Your task to perform on an android device: turn on translation in the chrome app Image 0: 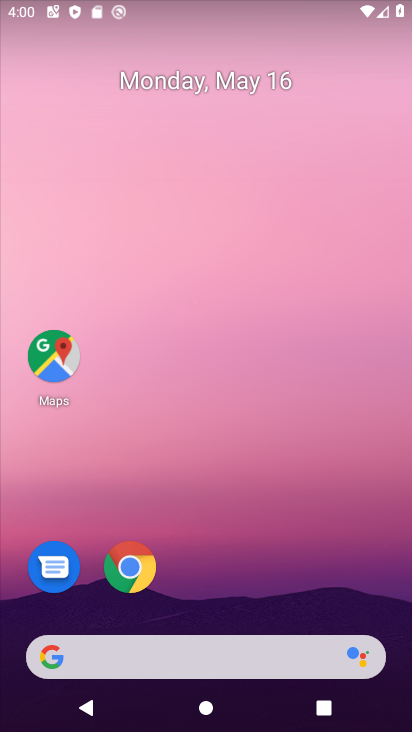
Step 0: drag from (218, 681) to (243, 9)
Your task to perform on an android device: turn on translation in the chrome app Image 1: 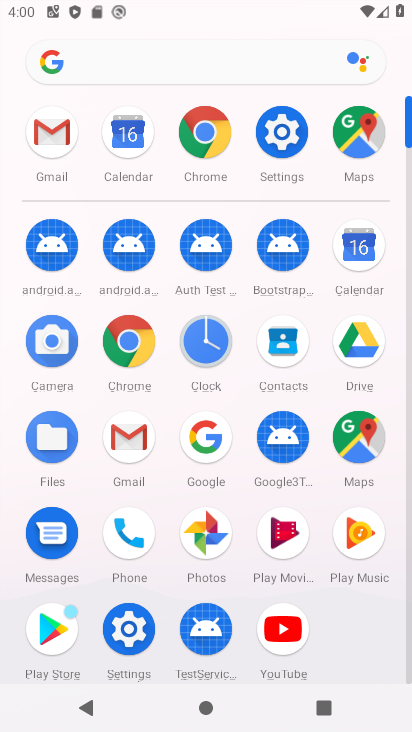
Step 1: click (136, 339)
Your task to perform on an android device: turn on translation in the chrome app Image 2: 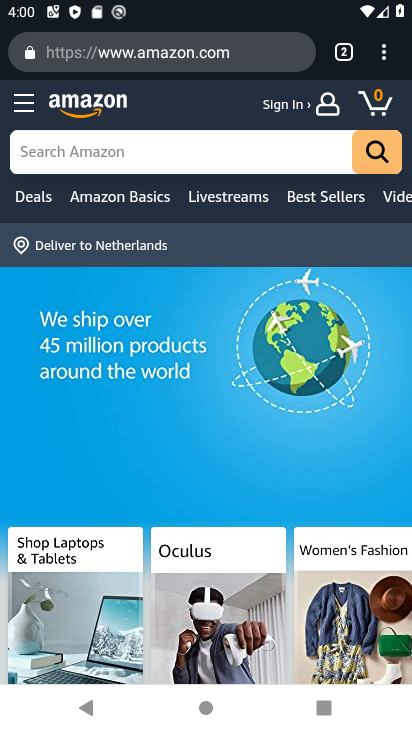
Step 2: click (382, 56)
Your task to perform on an android device: turn on translation in the chrome app Image 3: 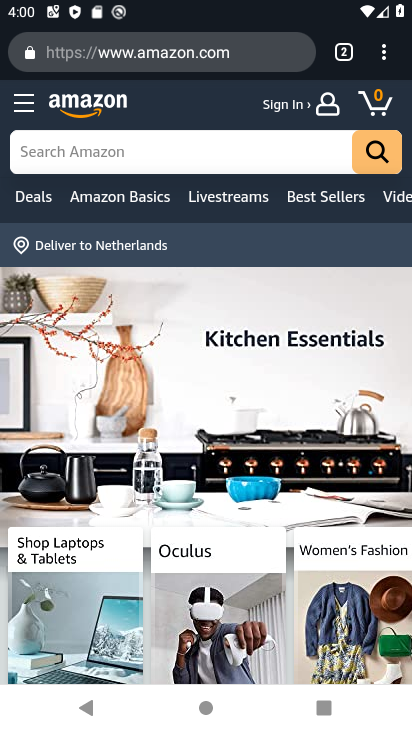
Step 3: click (385, 54)
Your task to perform on an android device: turn on translation in the chrome app Image 4: 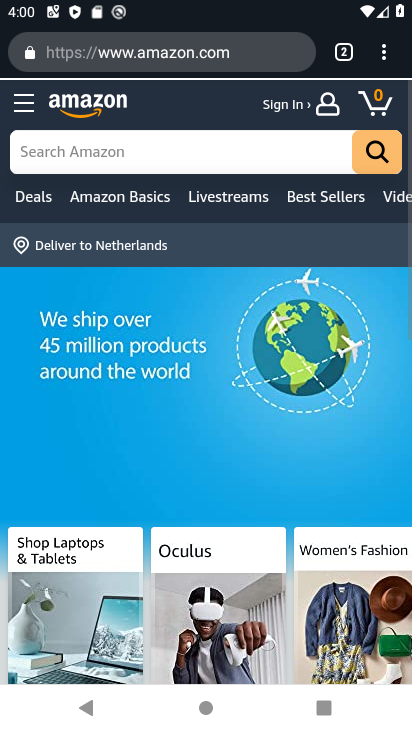
Step 4: drag from (381, 38) to (190, 594)
Your task to perform on an android device: turn on translation in the chrome app Image 5: 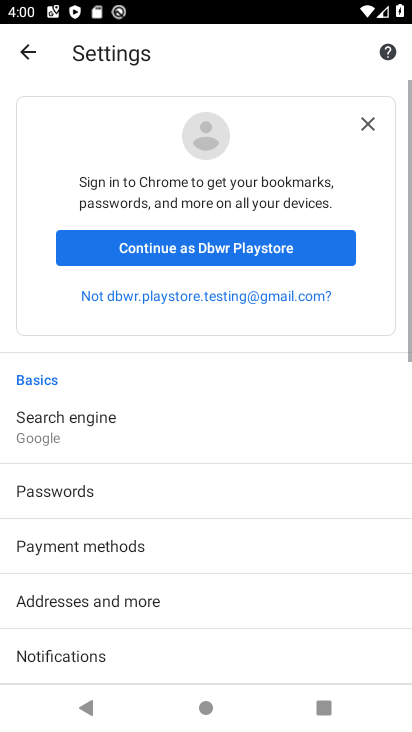
Step 5: drag from (257, 651) to (276, 36)
Your task to perform on an android device: turn on translation in the chrome app Image 6: 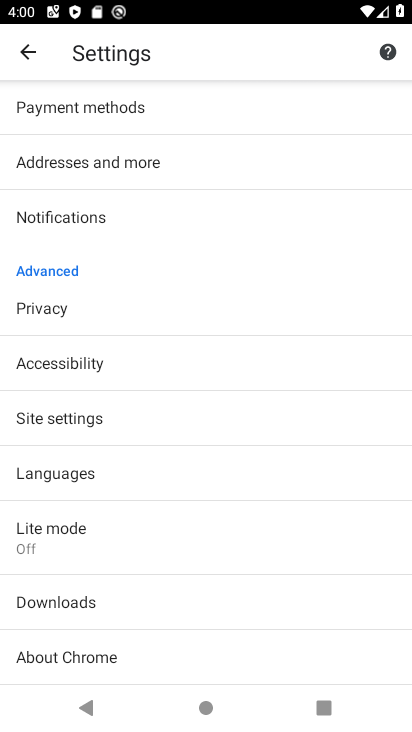
Step 6: click (114, 481)
Your task to perform on an android device: turn on translation in the chrome app Image 7: 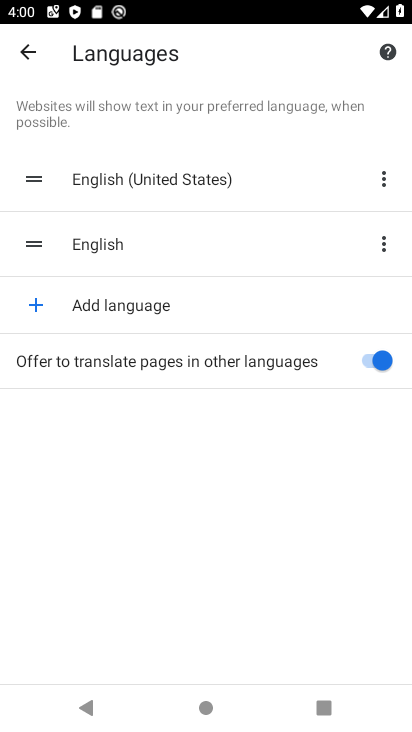
Step 7: task complete